Your task to perform on an android device: What's on my calendar today? Image 0: 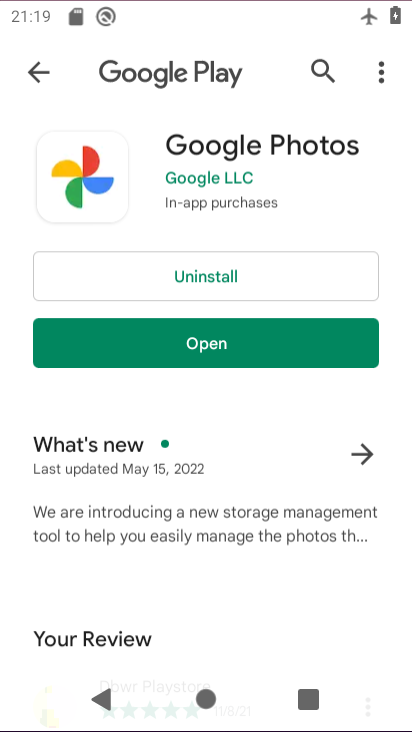
Step 0: drag from (220, 545) to (246, 225)
Your task to perform on an android device: What's on my calendar today? Image 1: 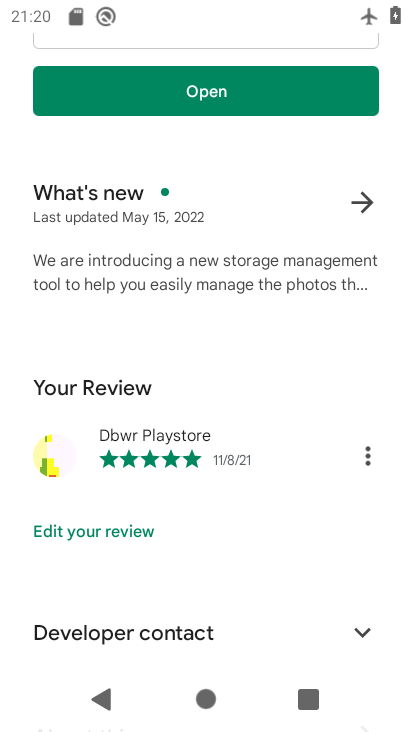
Step 1: drag from (293, 560) to (329, 164)
Your task to perform on an android device: What's on my calendar today? Image 2: 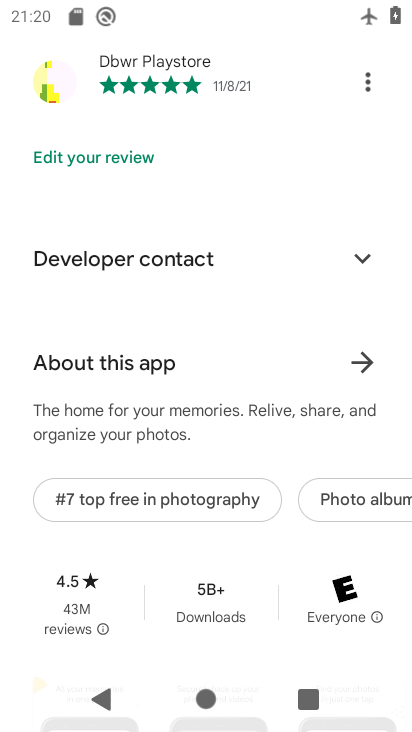
Step 2: press home button
Your task to perform on an android device: What's on my calendar today? Image 3: 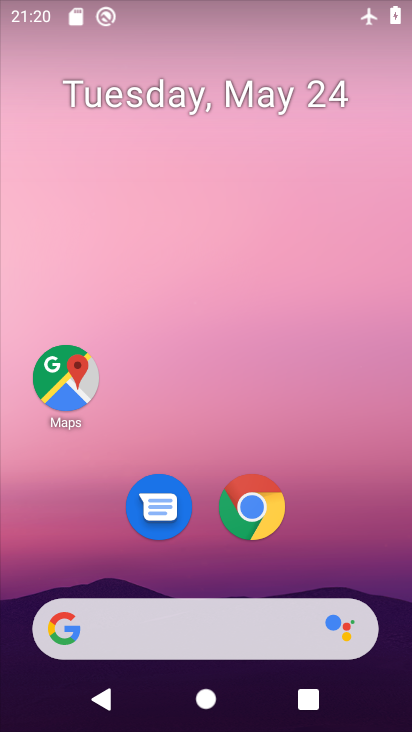
Step 3: drag from (224, 593) to (240, 289)
Your task to perform on an android device: What's on my calendar today? Image 4: 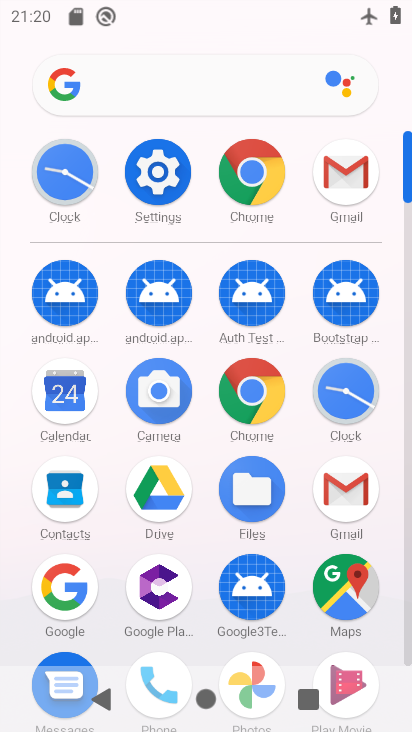
Step 4: click (54, 420)
Your task to perform on an android device: What's on my calendar today? Image 5: 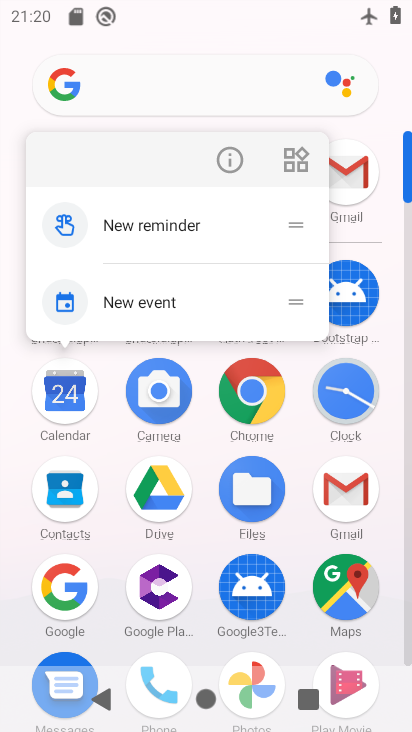
Step 5: click (236, 143)
Your task to perform on an android device: What's on my calendar today? Image 6: 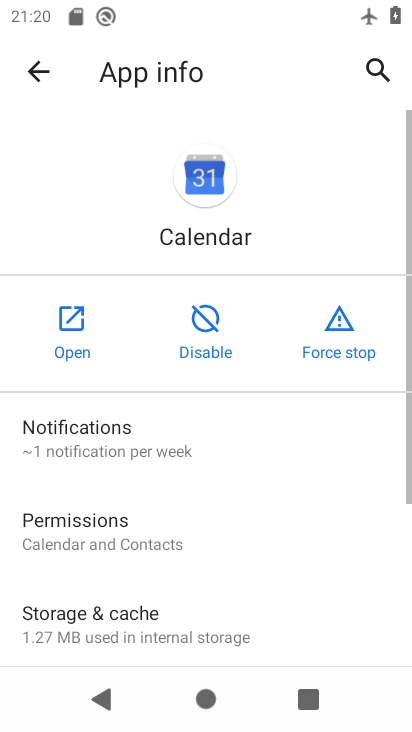
Step 6: click (72, 316)
Your task to perform on an android device: What's on my calendar today? Image 7: 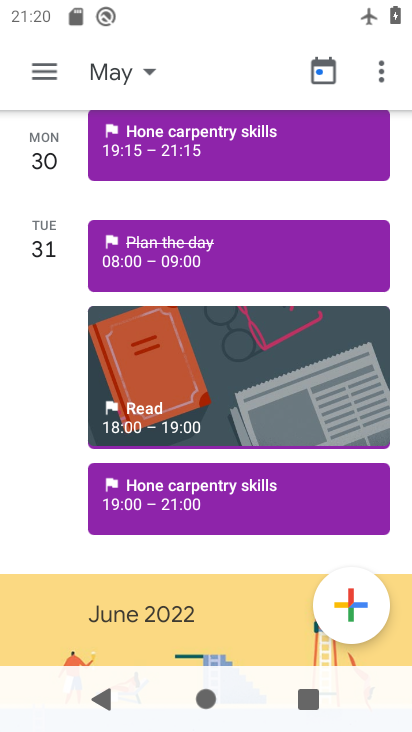
Step 7: click (148, 70)
Your task to perform on an android device: What's on my calendar today? Image 8: 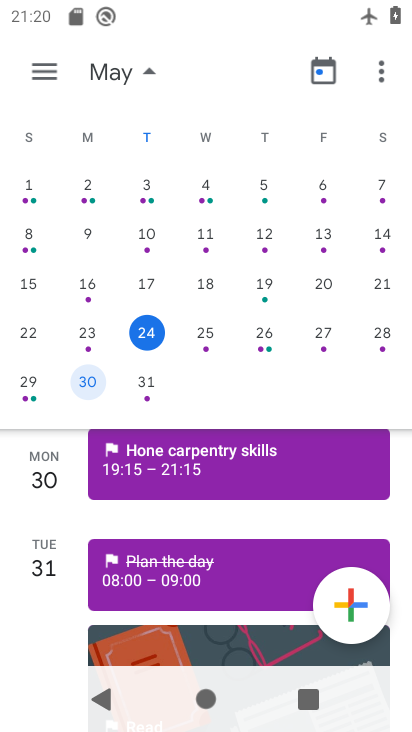
Step 8: click (145, 334)
Your task to perform on an android device: What's on my calendar today? Image 9: 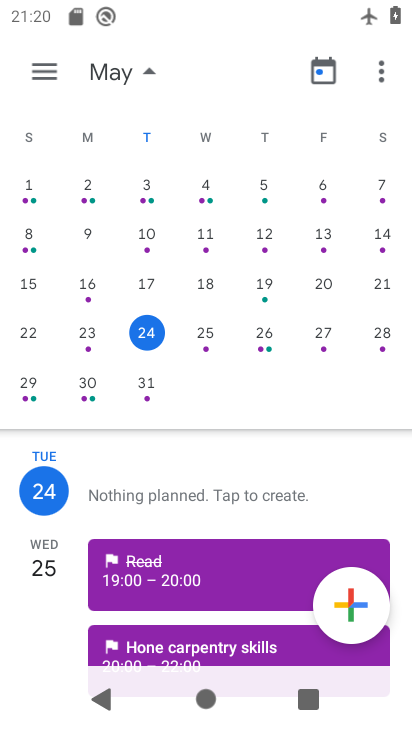
Step 9: task complete